Your task to perform on an android device: Open display settings Image 0: 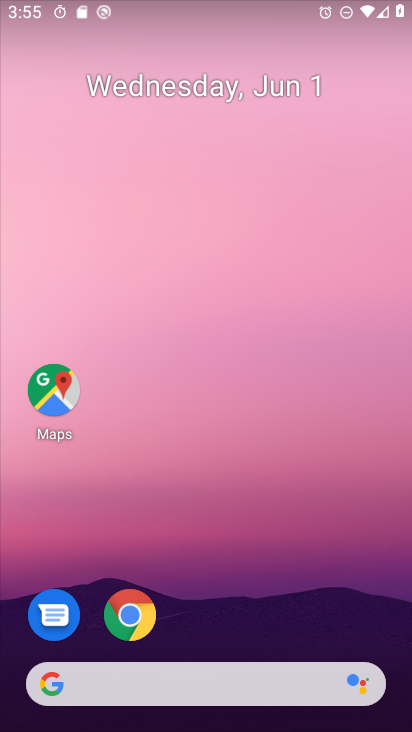
Step 0: drag from (244, 674) to (336, 0)
Your task to perform on an android device: Open display settings Image 1: 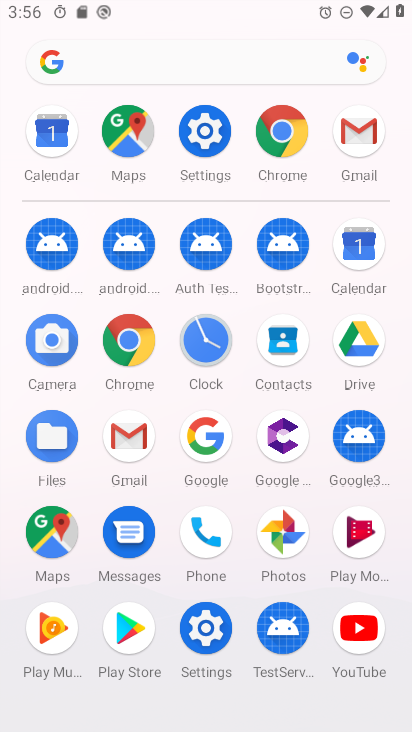
Step 1: click (196, 127)
Your task to perform on an android device: Open display settings Image 2: 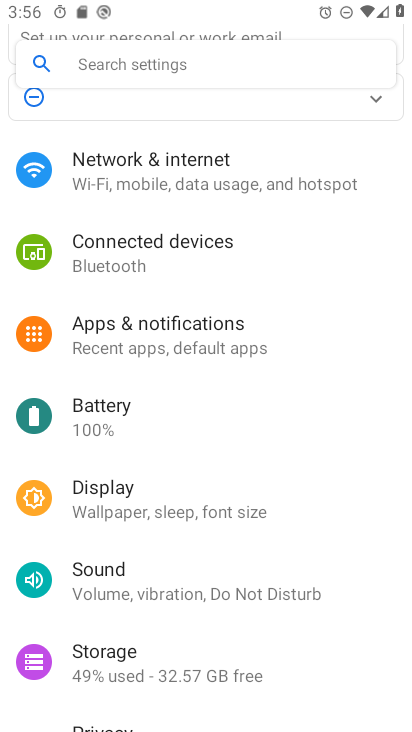
Step 2: click (119, 501)
Your task to perform on an android device: Open display settings Image 3: 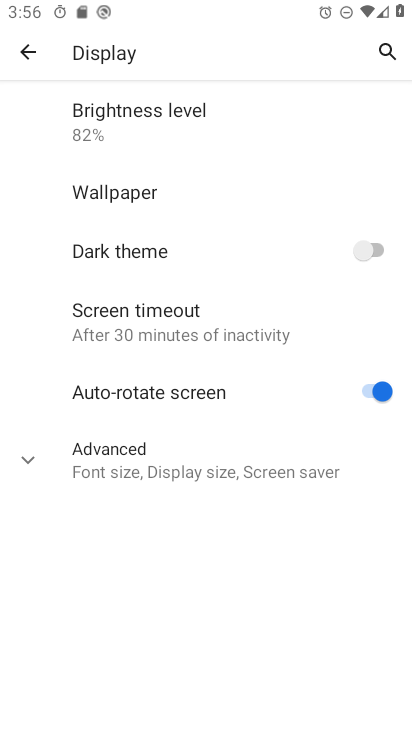
Step 3: task complete